Your task to perform on an android device: What's the weather going to be tomorrow? Image 0: 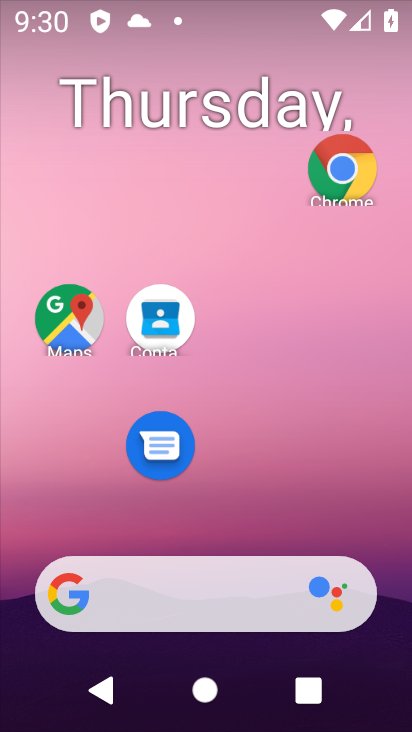
Step 0: drag from (243, 590) to (302, 193)
Your task to perform on an android device: What's the weather going to be tomorrow? Image 1: 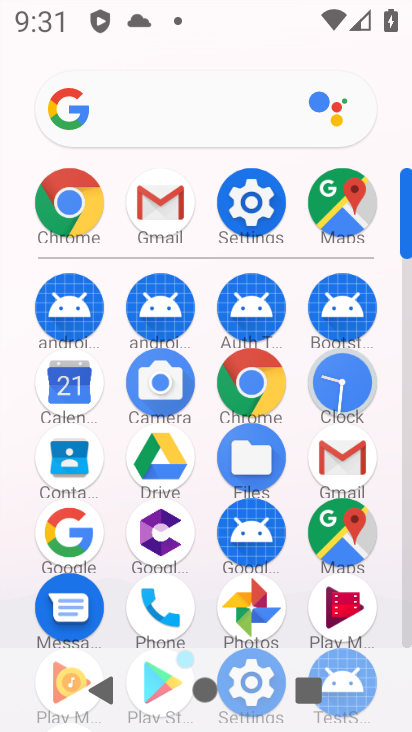
Step 1: click (171, 125)
Your task to perform on an android device: What's the weather going to be tomorrow? Image 2: 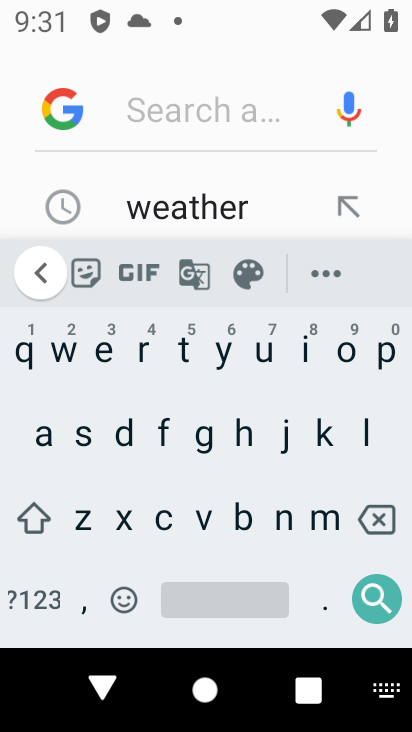
Step 2: click (178, 197)
Your task to perform on an android device: What's the weather going to be tomorrow? Image 3: 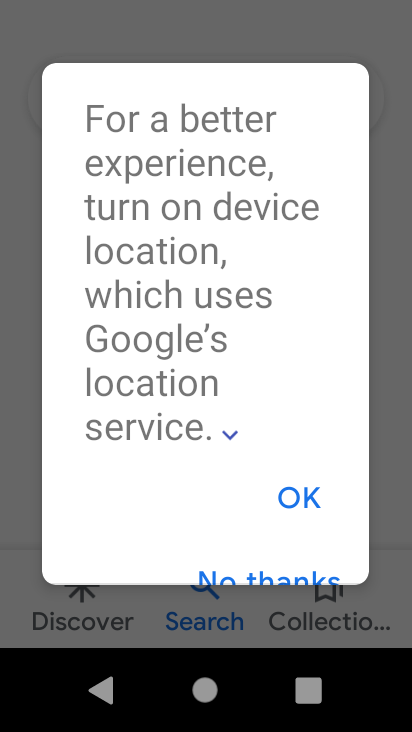
Step 3: click (239, 568)
Your task to perform on an android device: What's the weather going to be tomorrow? Image 4: 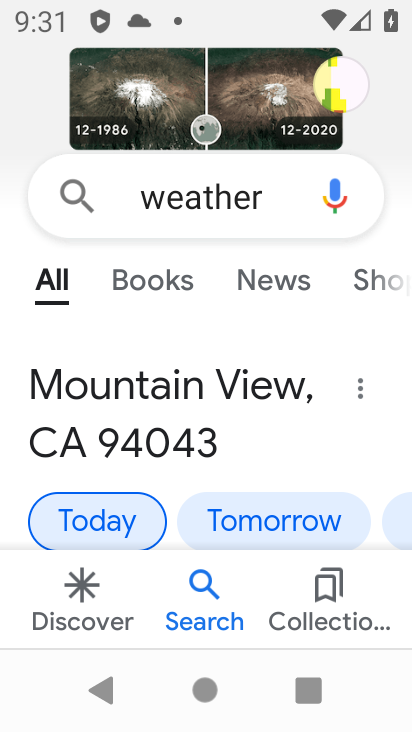
Step 4: click (215, 528)
Your task to perform on an android device: What's the weather going to be tomorrow? Image 5: 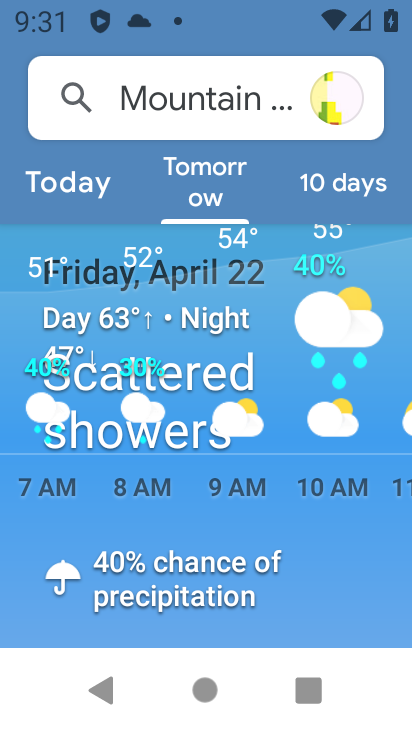
Step 5: task complete